Your task to perform on an android device: turn off smart reply in the gmail app Image 0: 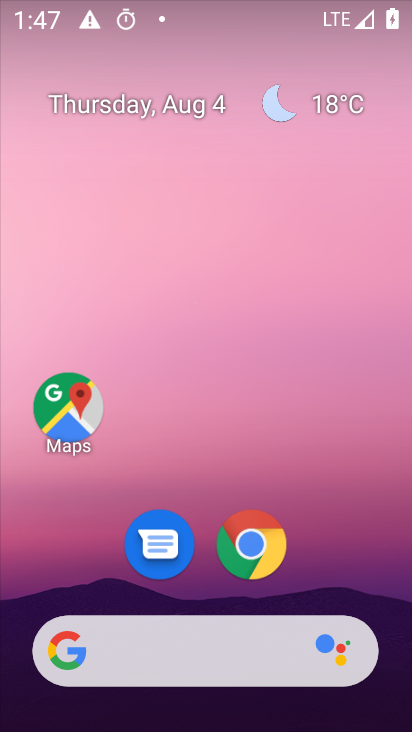
Step 0: drag from (400, 710) to (319, 190)
Your task to perform on an android device: turn off smart reply in the gmail app Image 1: 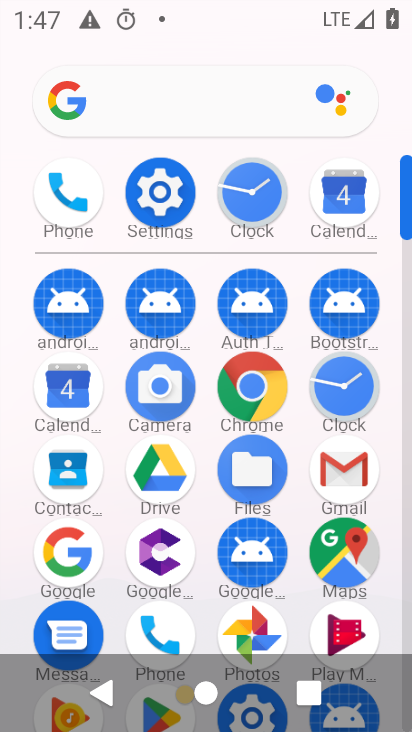
Step 1: click (326, 463)
Your task to perform on an android device: turn off smart reply in the gmail app Image 2: 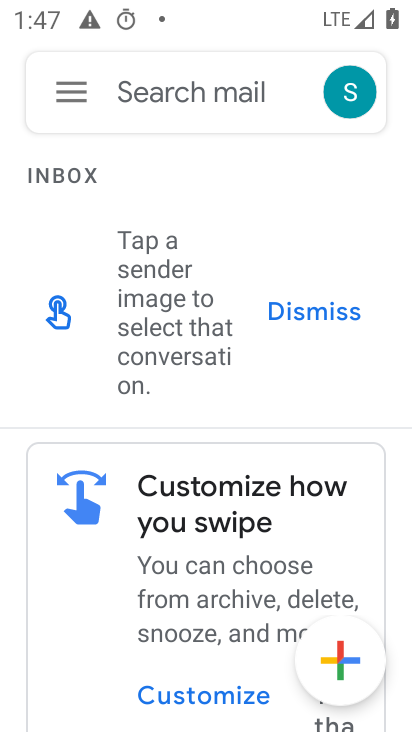
Step 2: click (72, 87)
Your task to perform on an android device: turn off smart reply in the gmail app Image 3: 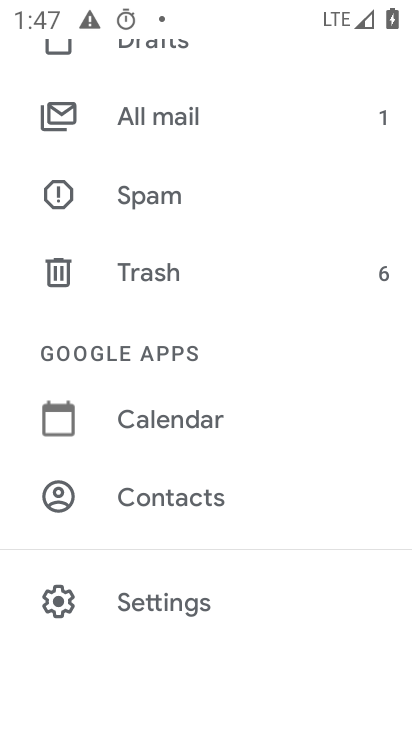
Step 3: click (127, 606)
Your task to perform on an android device: turn off smart reply in the gmail app Image 4: 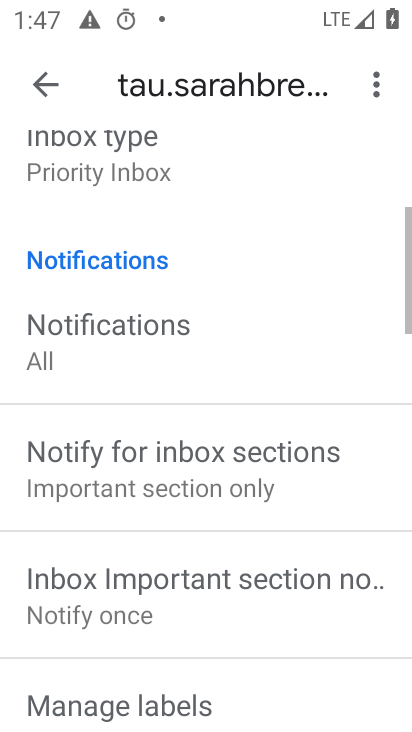
Step 4: drag from (231, 669) to (227, 269)
Your task to perform on an android device: turn off smart reply in the gmail app Image 5: 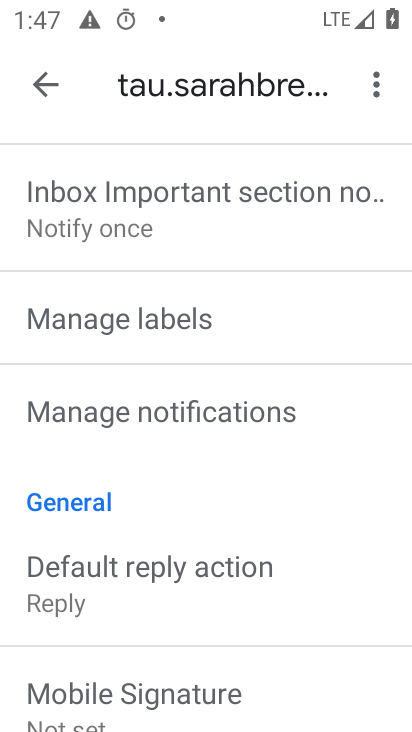
Step 5: drag from (192, 663) to (219, 319)
Your task to perform on an android device: turn off smart reply in the gmail app Image 6: 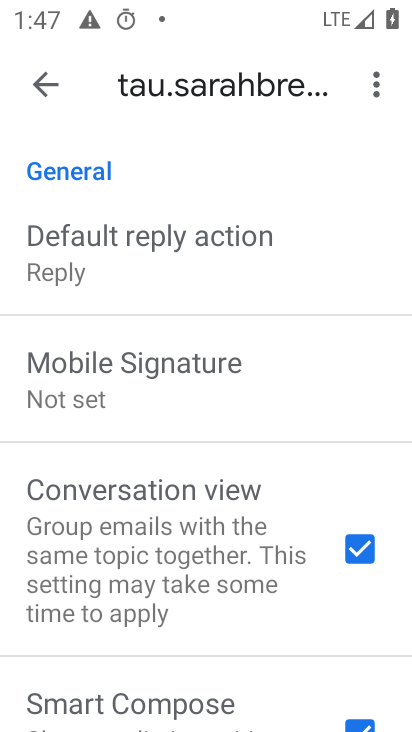
Step 6: drag from (218, 690) to (221, 328)
Your task to perform on an android device: turn off smart reply in the gmail app Image 7: 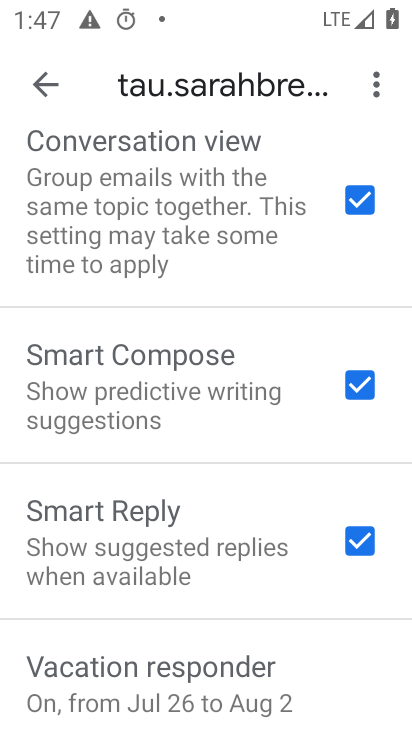
Step 7: click (361, 535)
Your task to perform on an android device: turn off smart reply in the gmail app Image 8: 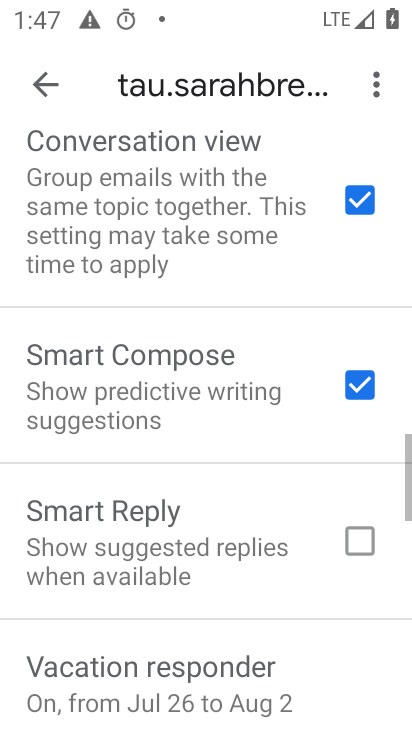
Step 8: task complete